Your task to perform on an android device: Open the web browser Image 0: 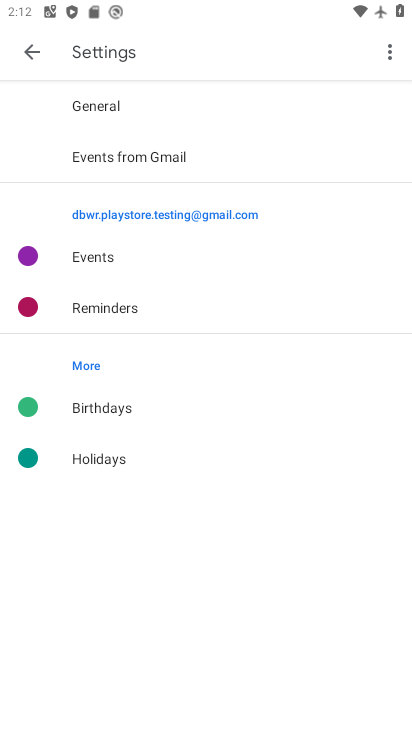
Step 0: press home button
Your task to perform on an android device: Open the web browser Image 1: 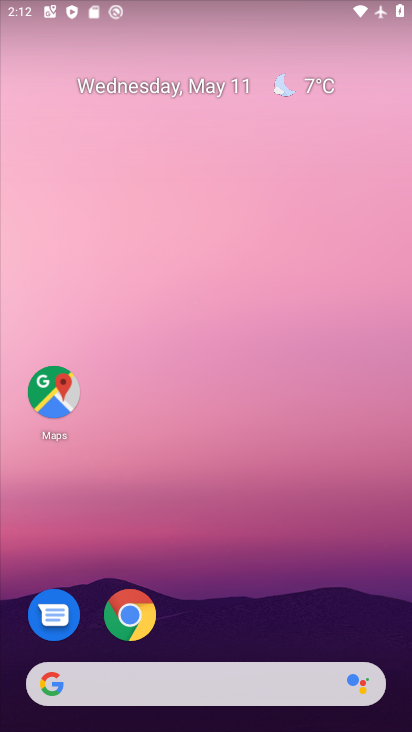
Step 1: click (139, 612)
Your task to perform on an android device: Open the web browser Image 2: 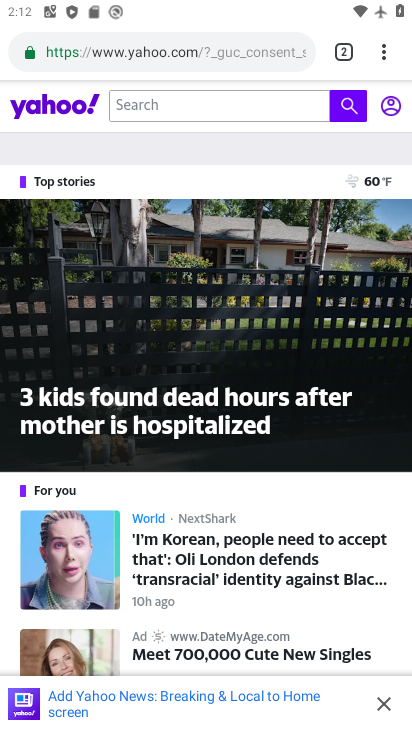
Step 2: task complete